Your task to perform on an android device: Open Chrome and go to settings Image 0: 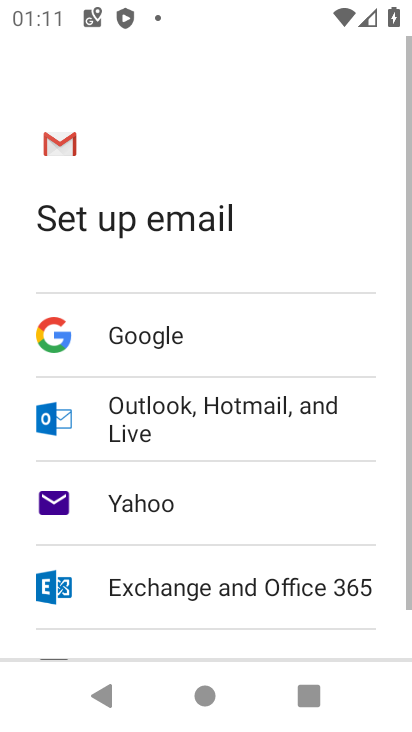
Step 0: press home button
Your task to perform on an android device: Open Chrome and go to settings Image 1: 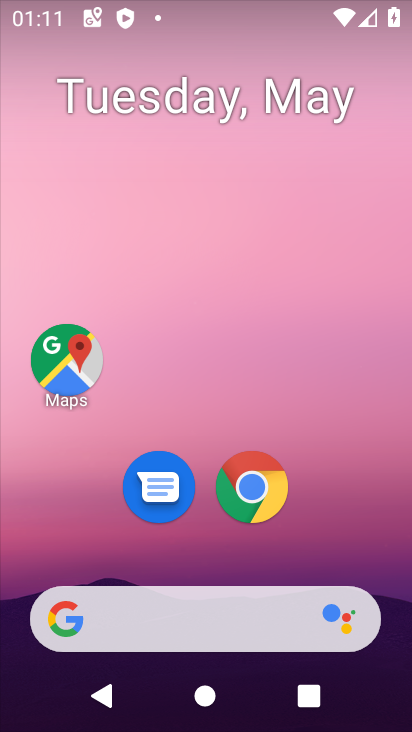
Step 1: click (271, 485)
Your task to perform on an android device: Open Chrome and go to settings Image 2: 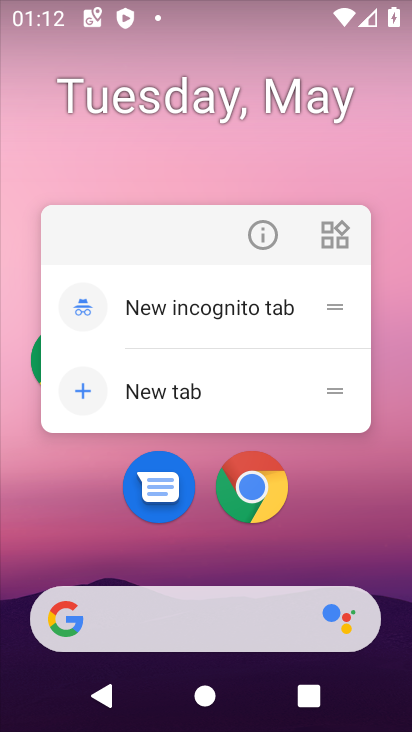
Step 2: click (249, 481)
Your task to perform on an android device: Open Chrome and go to settings Image 3: 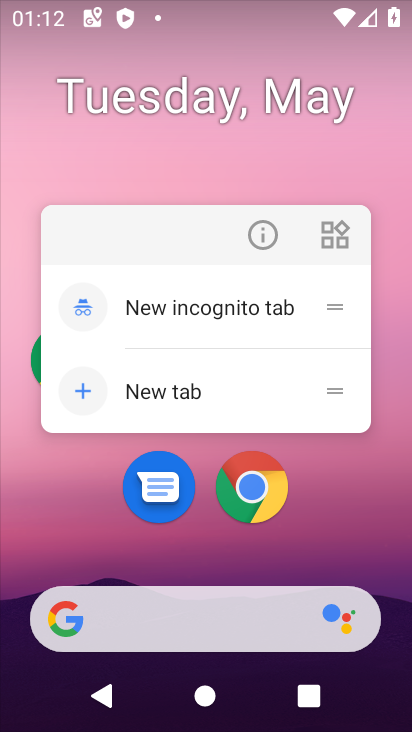
Step 3: click (248, 477)
Your task to perform on an android device: Open Chrome and go to settings Image 4: 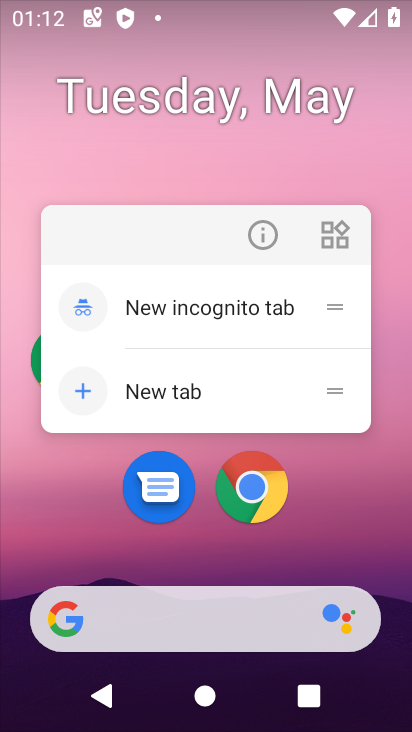
Step 4: click (250, 477)
Your task to perform on an android device: Open Chrome and go to settings Image 5: 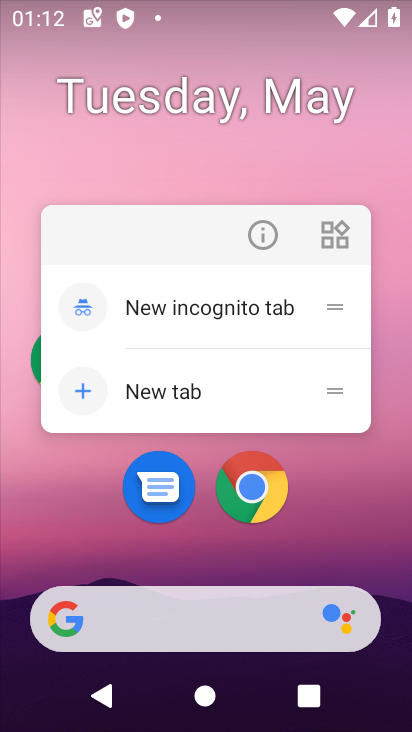
Step 5: click (251, 475)
Your task to perform on an android device: Open Chrome and go to settings Image 6: 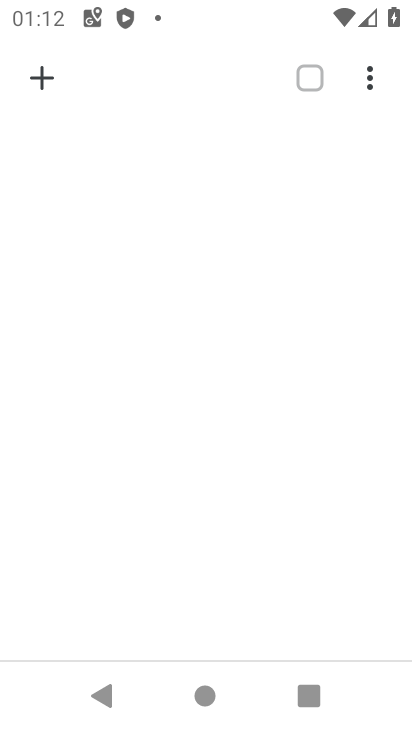
Step 6: click (370, 74)
Your task to perform on an android device: Open Chrome and go to settings Image 7: 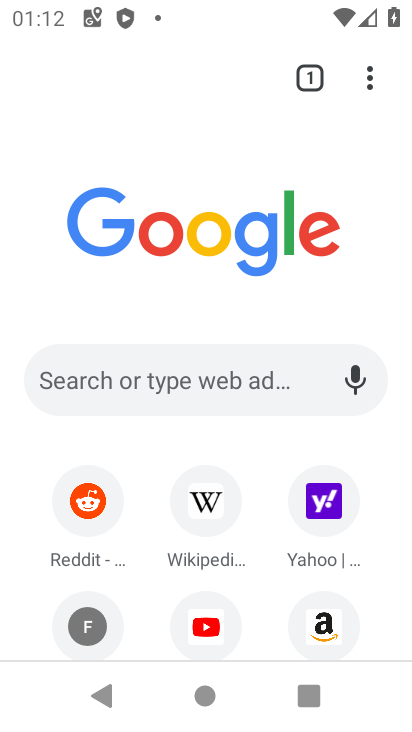
Step 7: click (375, 71)
Your task to perform on an android device: Open Chrome and go to settings Image 8: 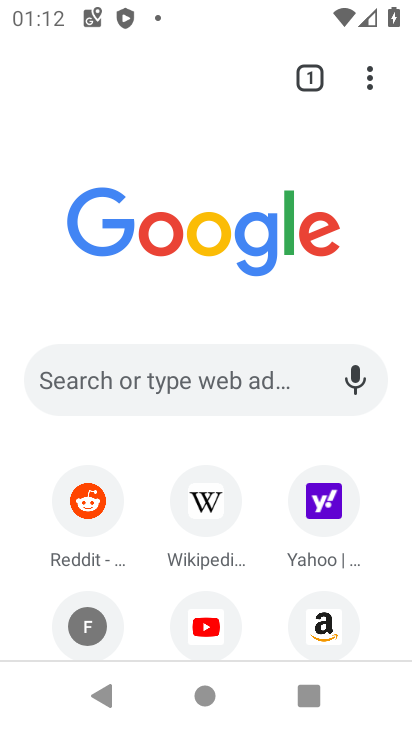
Step 8: click (375, 75)
Your task to perform on an android device: Open Chrome and go to settings Image 9: 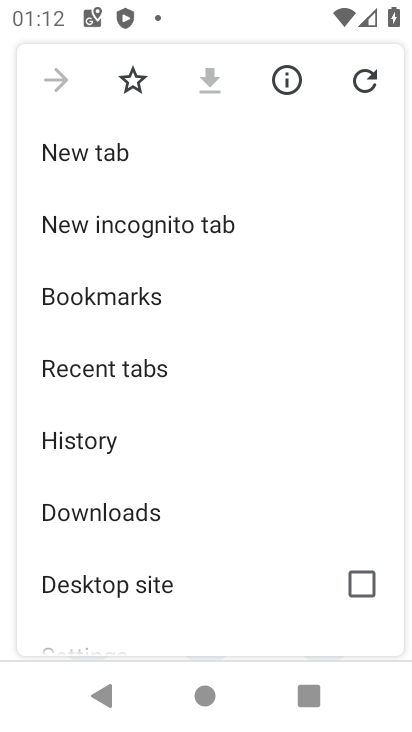
Step 9: drag from (140, 582) to (219, 180)
Your task to perform on an android device: Open Chrome and go to settings Image 10: 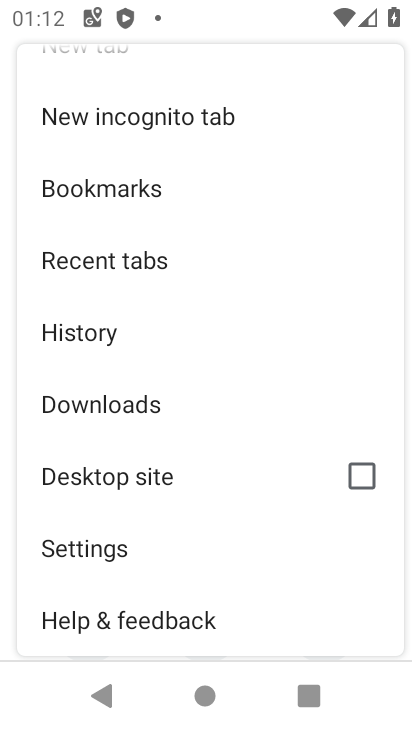
Step 10: click (117, 551)
Your task to perform on an android device: Open Chrome and go to settings Image 11: 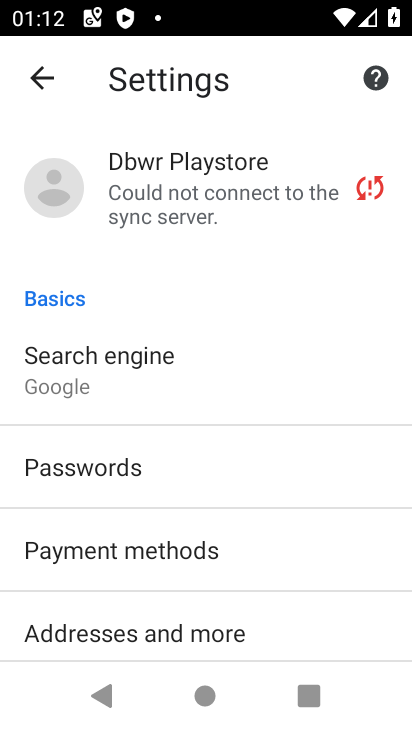
Step 11: task complete